Your task to perform on an android device: open app "Viber Messenger" (install if not already installed) Image 0: 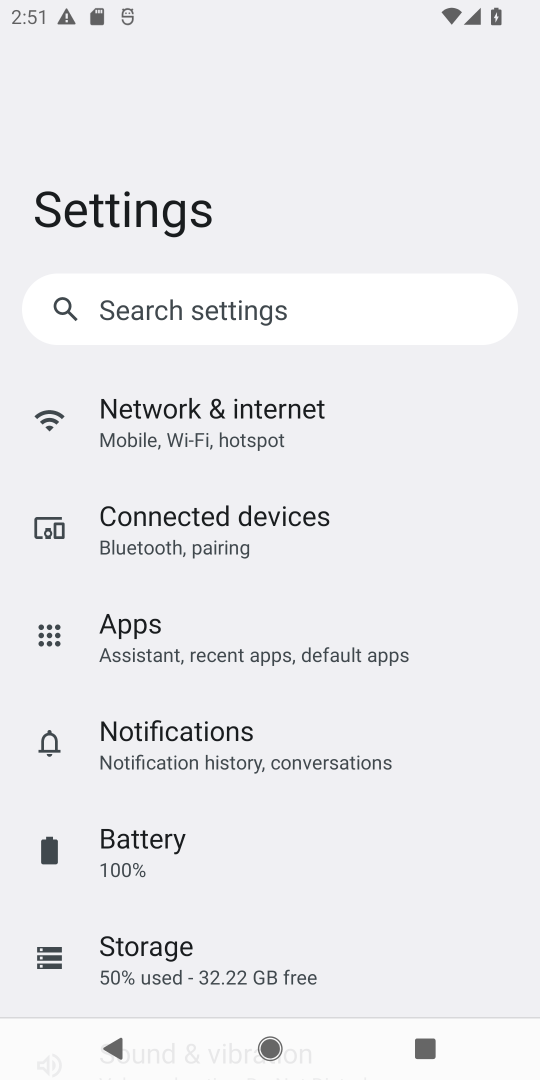
Step 0: press home button
Your task to perform on an android device: open app "Viber Messenger" (install if not already installed) Image 1: 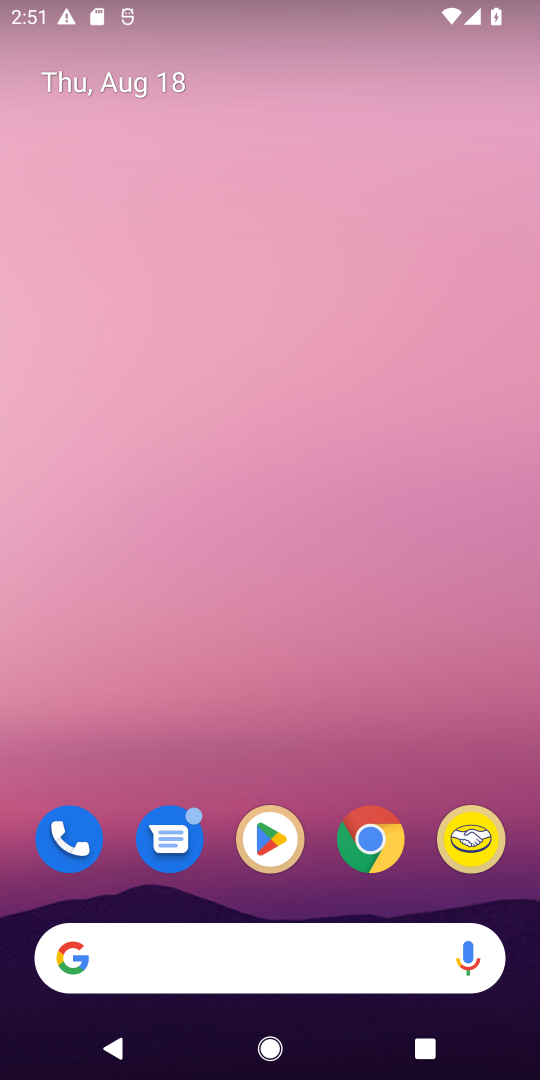
Step 1: click (268, 861)
Your task to perform on an android device: open app "Viber Messenger" (install if not already installed) Image 2: 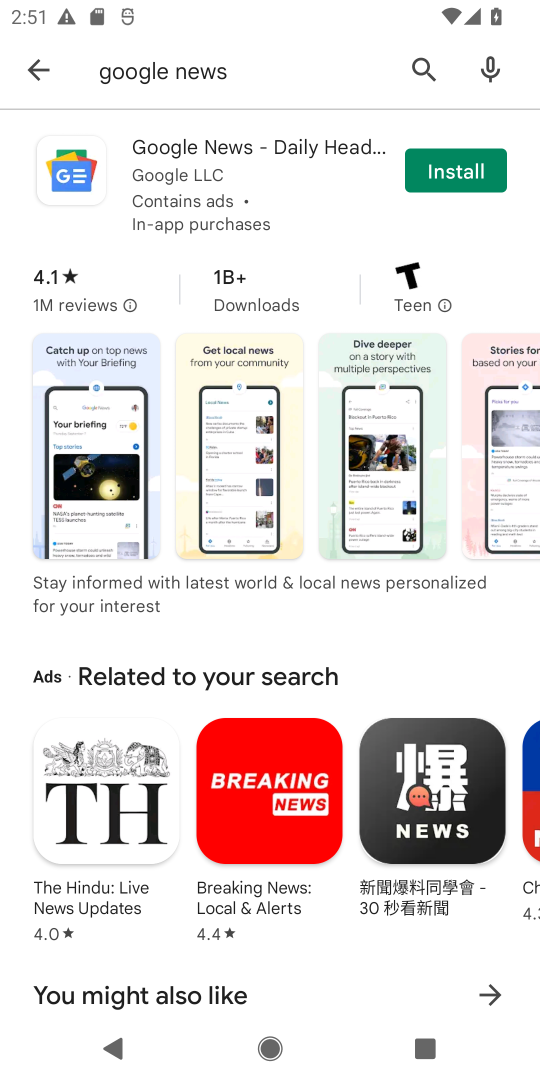
Step 2: click (41, 70)
Your task to perform on an android device: open app "Viber Messenger" (install if not already installed) Image 3: 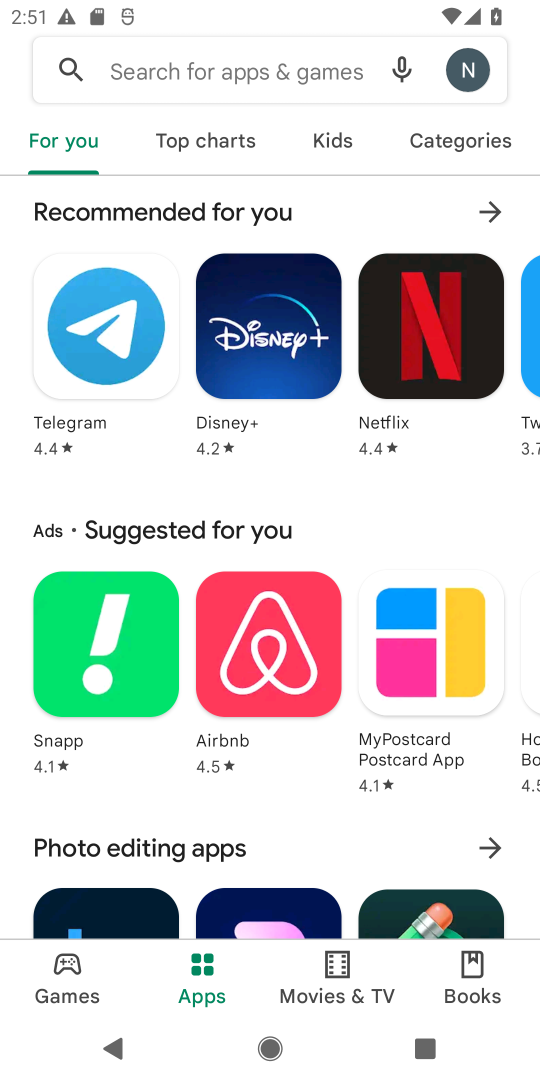
Step 3: click (176, 90)
Your task to perform on an android device: open app "Viber Messenger" (install if not already installed) Image 4: 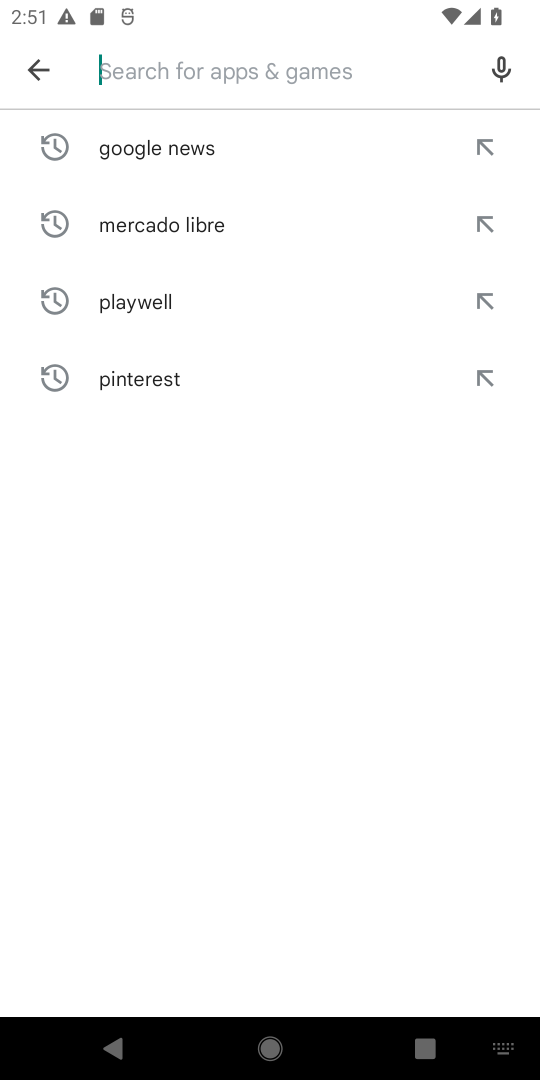
Step 4: type "Viber Messenger"
Your task to perform on an android device: open app "Viber Messenger" (install if not already installed) Image 5: 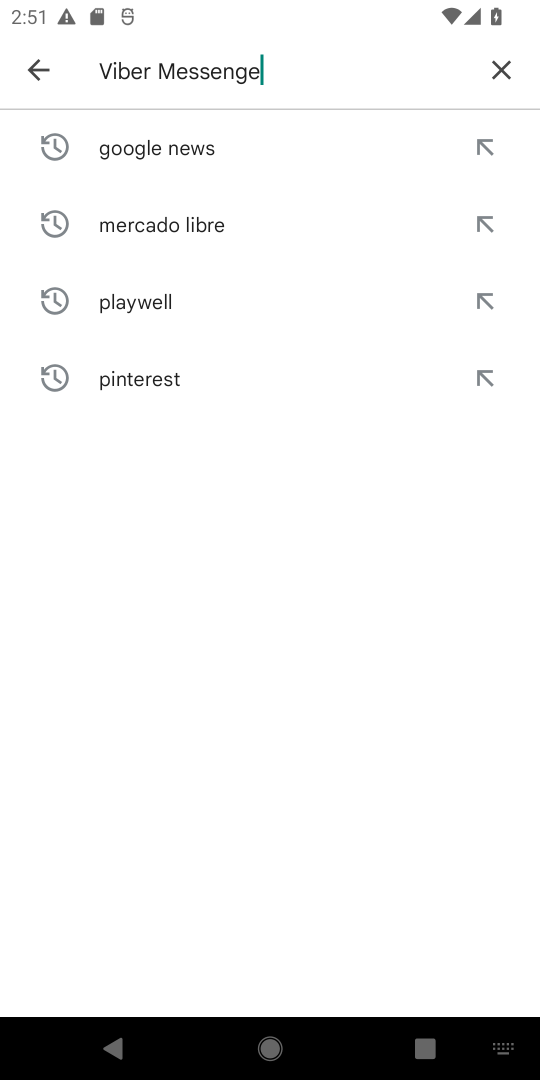
Step 5: type ""
Your task to perform on an android device: open app "Viber Messenger" (install if not already installed) Image 6: 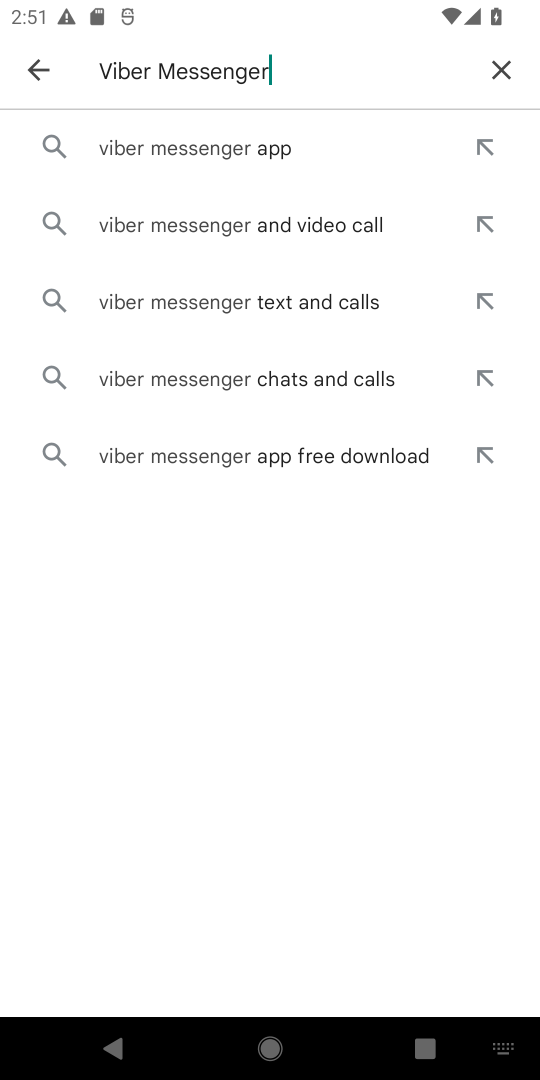
Step 6: click (111, 152)
Your task to perform on an android device: open app "Viber Messenger" (install if not already installed) Image 7: 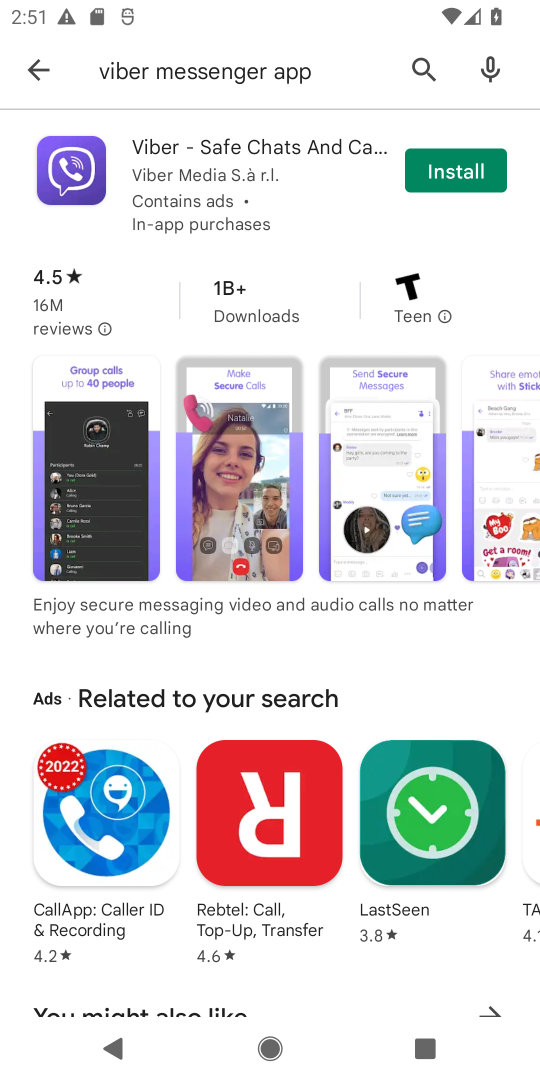
Step 7: click (434, 176)
Your task to perform on an android device: open app "Viber Messenger" (install if not already installed) Image 8: 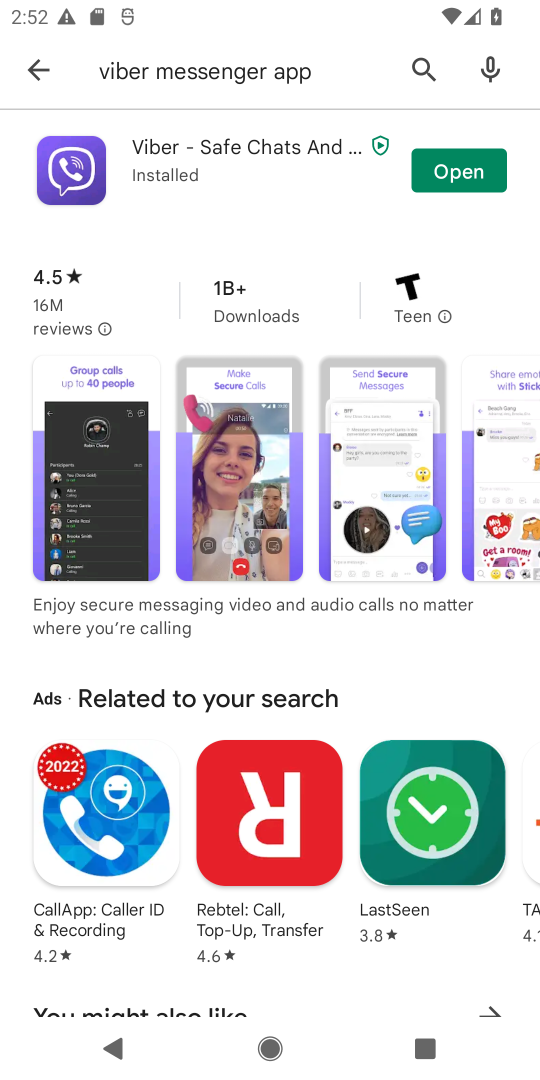
Step 8: click (458, 176)
Your task to perform on an android device: open app "Viber Messenger" (install if not already installed) Image 9: 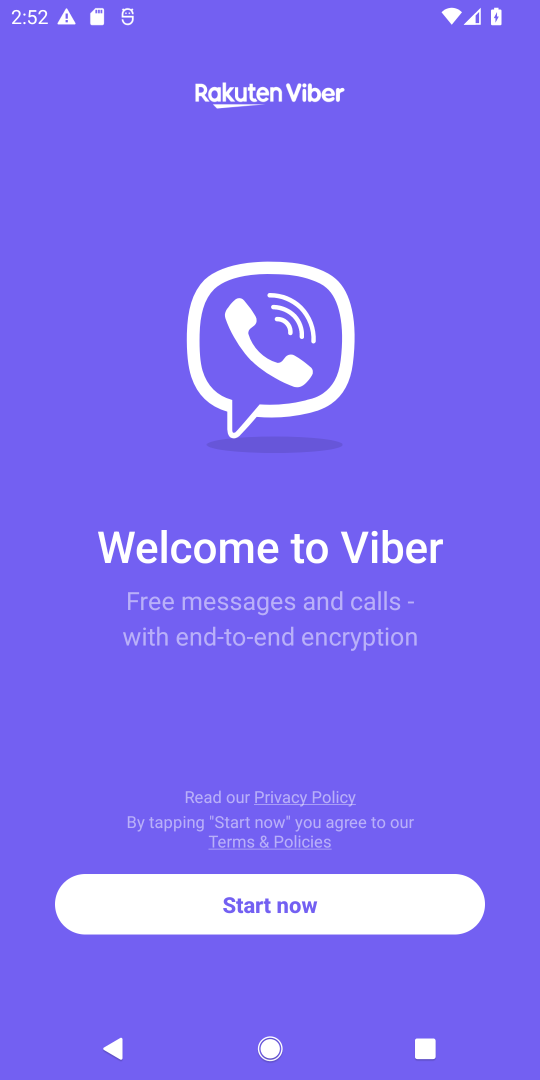
Step 9: task complete